Your task to perform on an android device: check google app version Image 0: 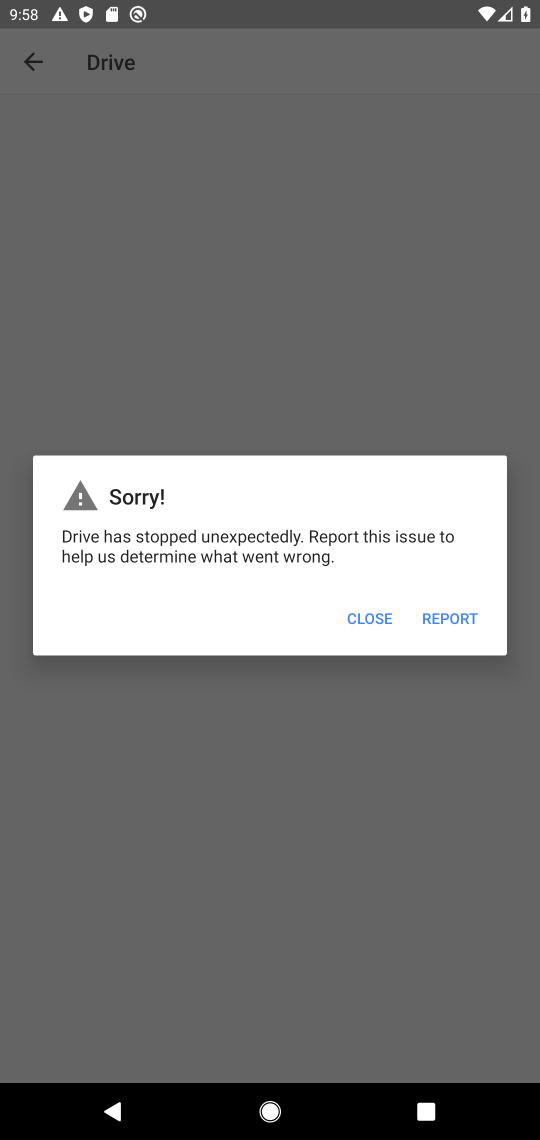
Step 0: press home button
Your task to perform on an android device: check google app version Image 1: 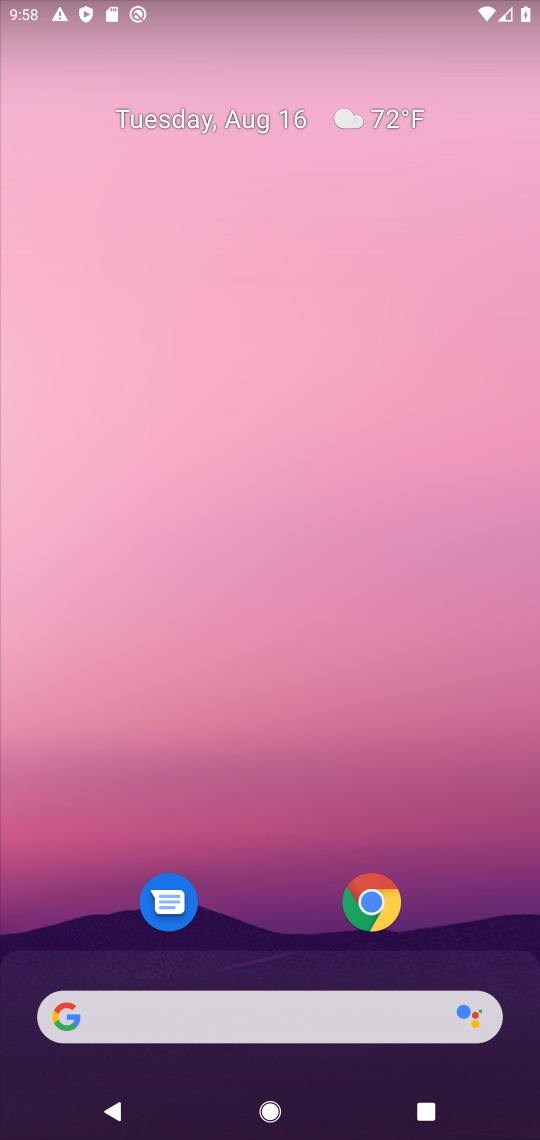
Step 1: drag from (197, 1000) to (237, 233)
Your task to perform on an android device: check google app version Image 2: 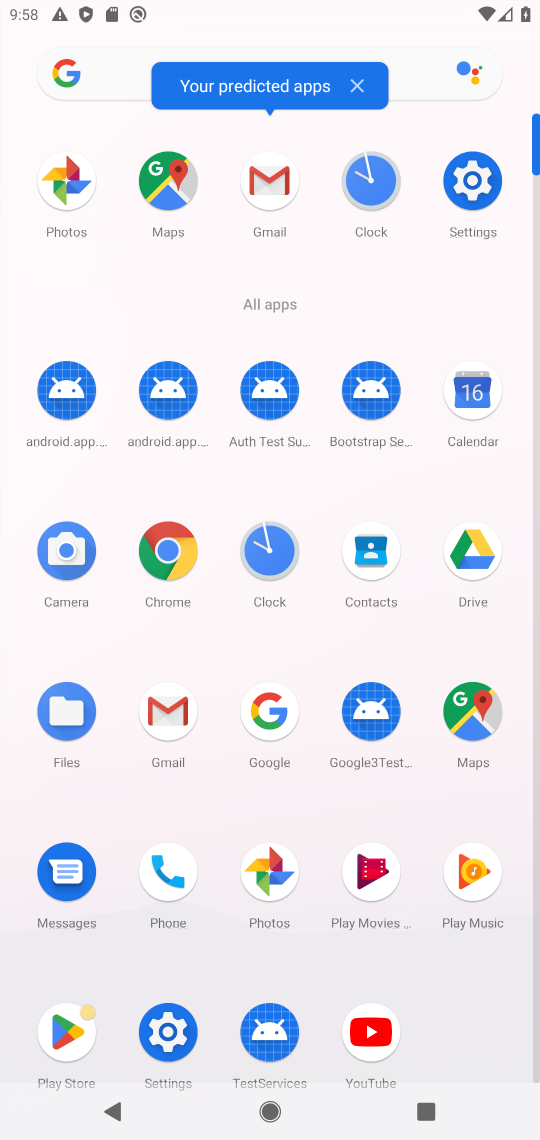
Step 2: click (260, 693)
Your task to perform on an android device: check google app version Image 3: 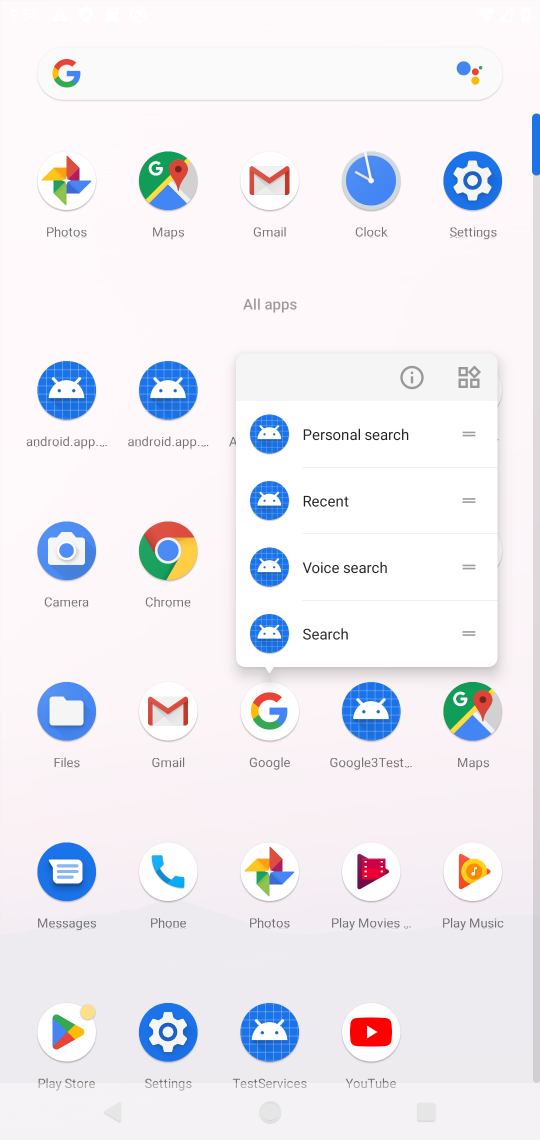
Step 3: click (415, 364)
Your task to perform on an android device: check google app version Image 4: 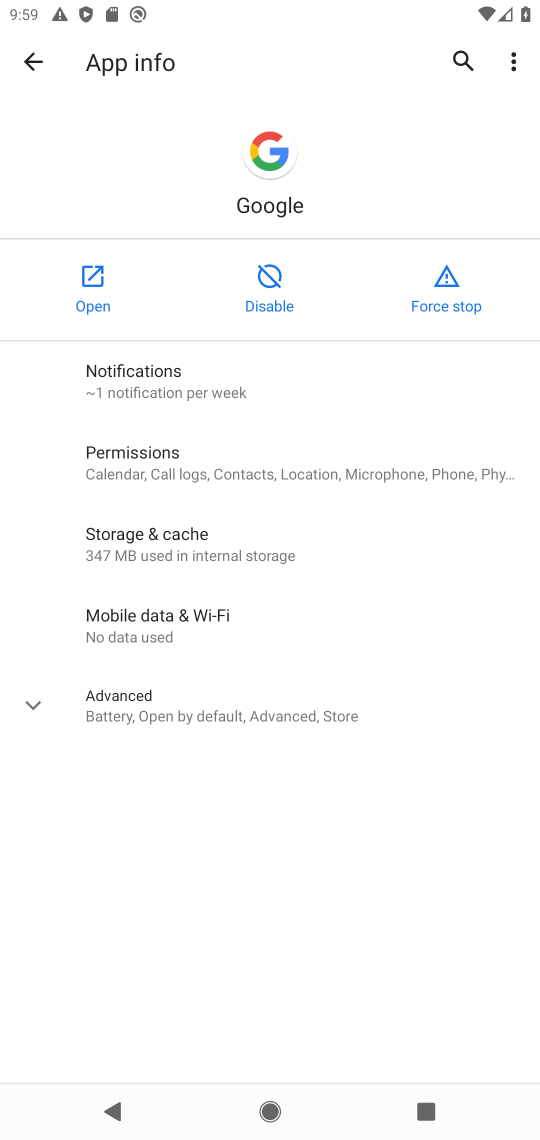
Step 4: click (145, 686)
Your task to perform on an android device: check google app version Image 5: 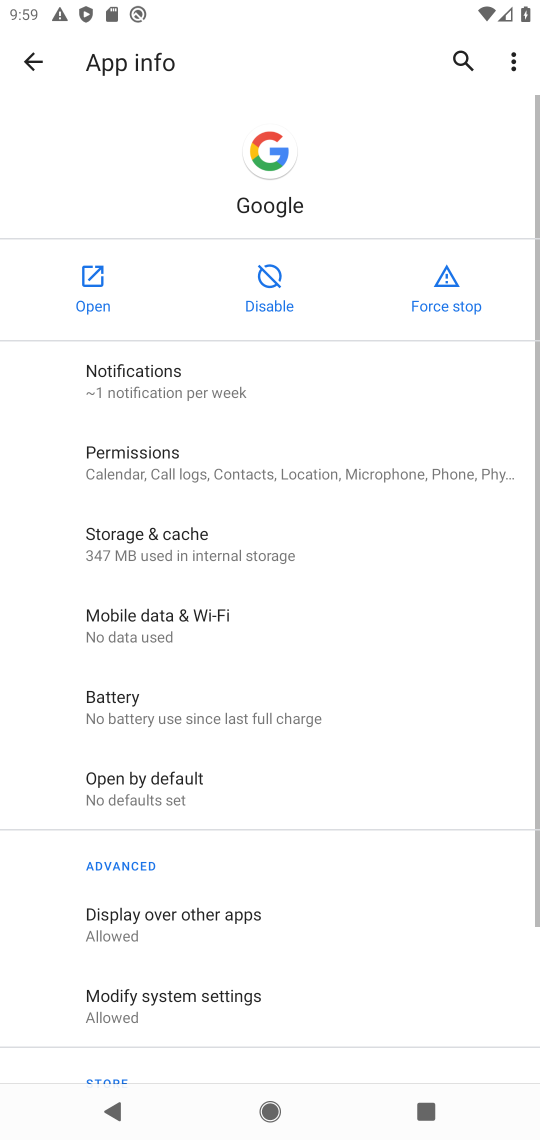
Step 5: task complete